Your task to perform on an android device: Go to display settings Image 0: 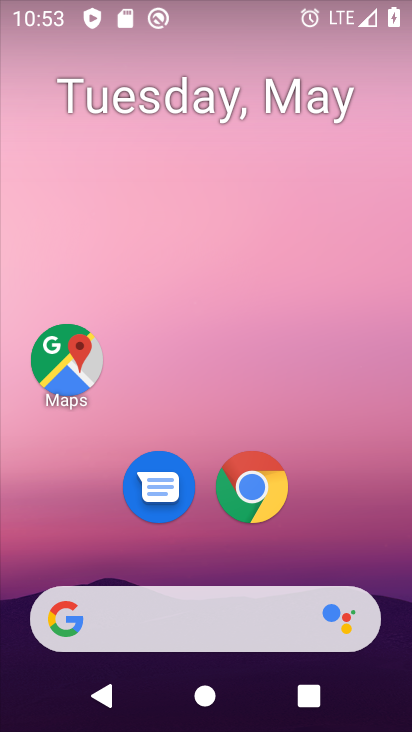
Step 0: click (213, 23)
Your task to perform on an android device: Go to display settings Image 1: 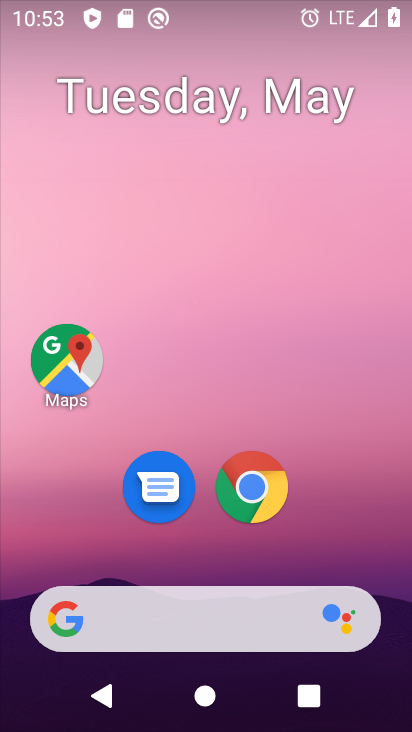
Step 1: drag from (204, 532) to (185, 4)
Your task to perform on an android device: Go to display settings Image 2: 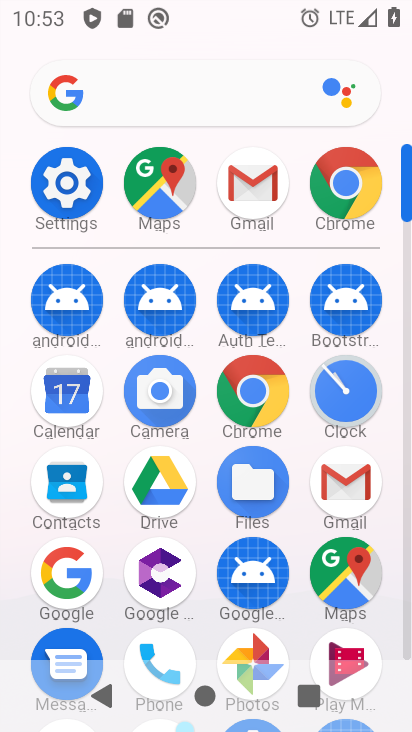
Step 2: click (50, 205)
Your task to perform on an android device: Go to display settings Image 3: 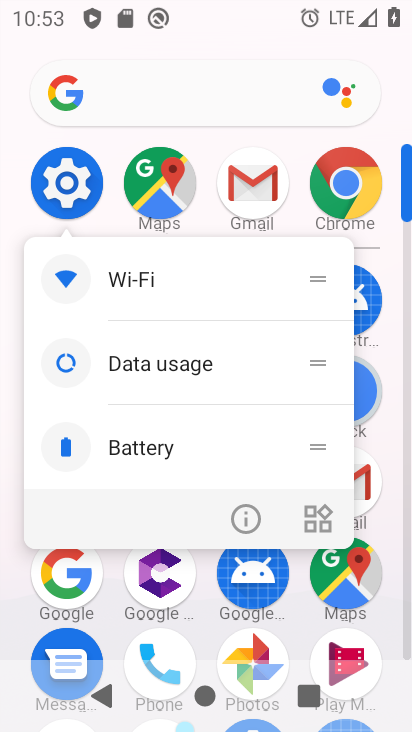
Step 3: click (248, 512)
Your task to perform on an android device: Go to display settings Image 4: 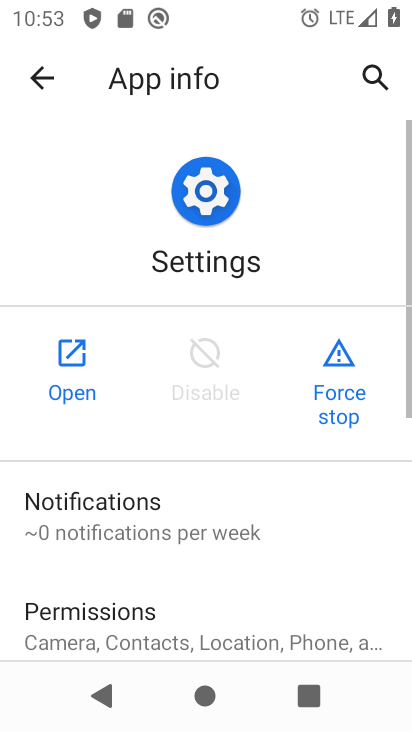
Step 4: click (67, 355)
Your task to perform on an android device: Go to display settings Image 5: 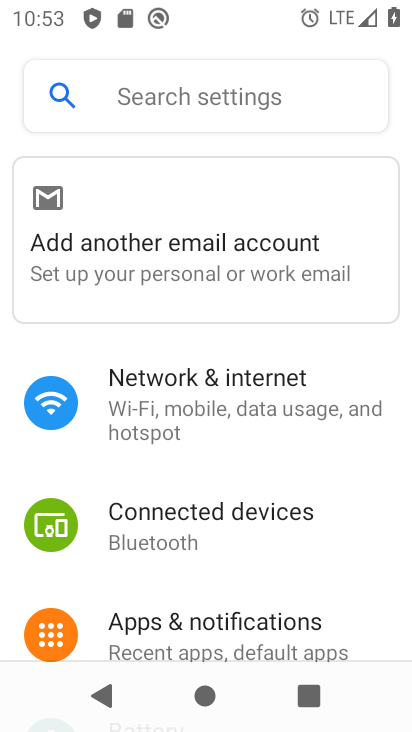
Step 5: drag from (247, 573) to (272, 26)
Your task to perform on an android device: Go to display settings Image 6: 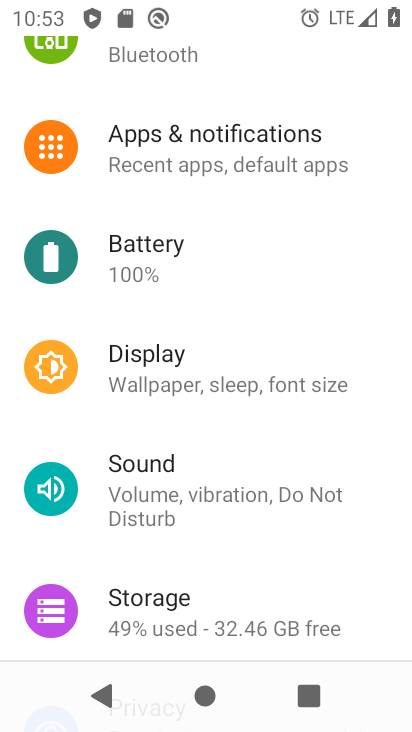
Step 6: click (188, 382)
Your task to perform on an android device: Go to display settings Image 7: 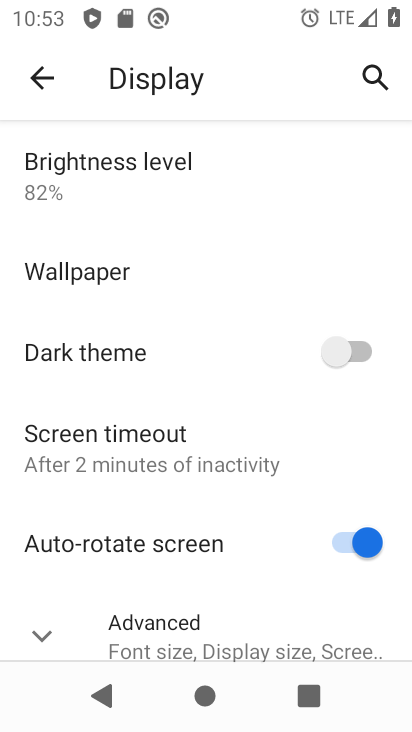
Step 7: task complete